Your task to perform on an android device: Open CNN.com Image 0: 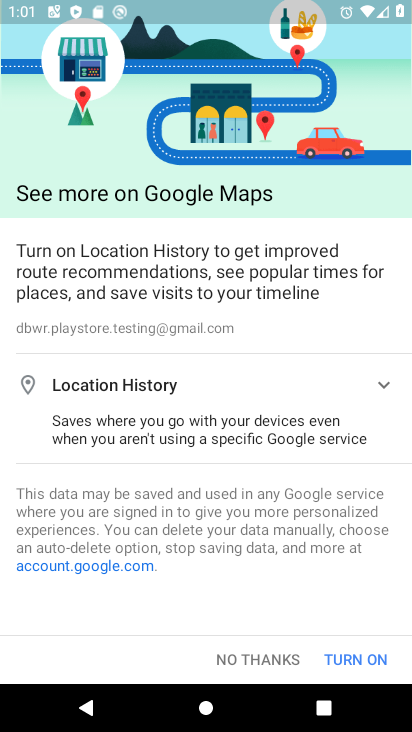
Step 0: press home button
Your task to perform on an android device: Open CNN.com Image 1: 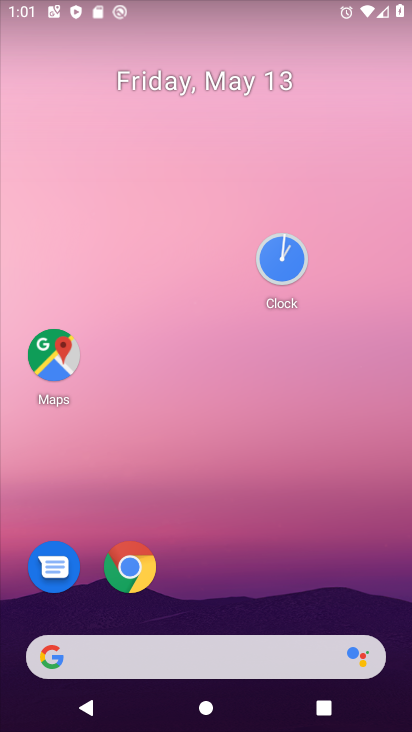
Step 1: click (131, 572)
Your task to perform on an android device: Open CNN.com Image 2: 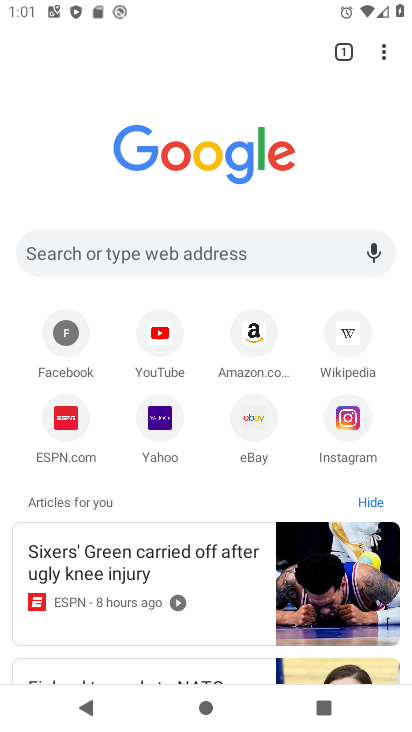
Step 2: click (221, 250)
Your task to perform on an android device: Open CNN.com Image 3: 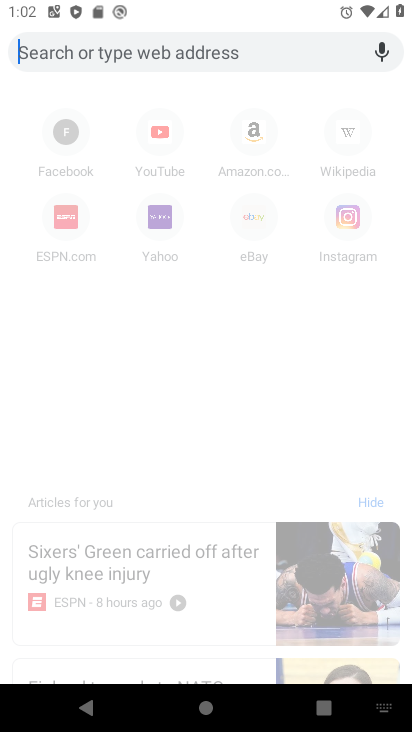
Step 3: type "cnn"
Your task to perform on an android device: Open CNN.com Image 4: 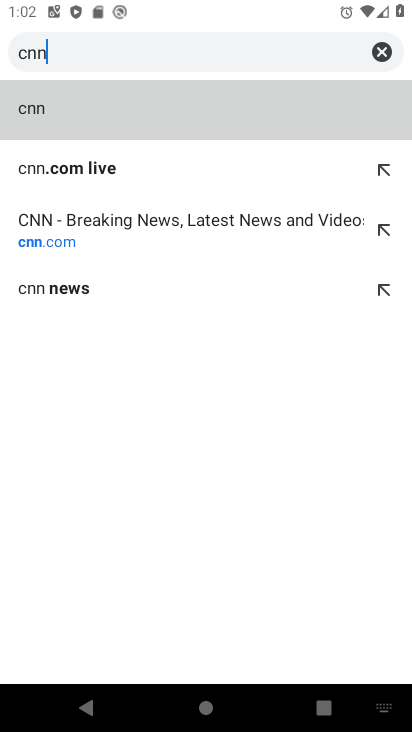
Step 4: click (72, 221)
Your task to perform on an android device: Open CNN.com Image 5: 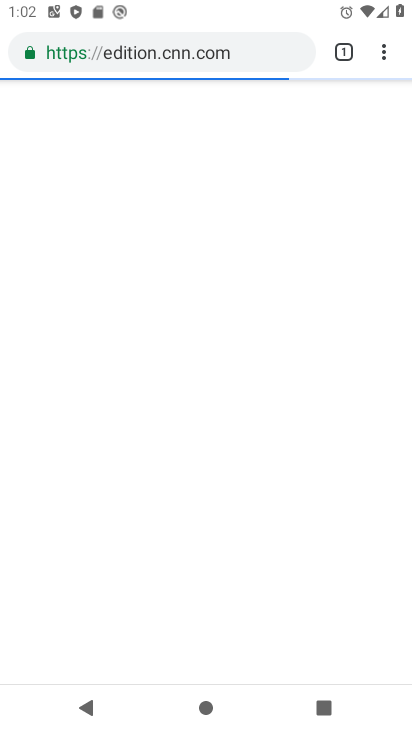
Step 5: task complete